Your task to perform on an android device: check storage Image 0: 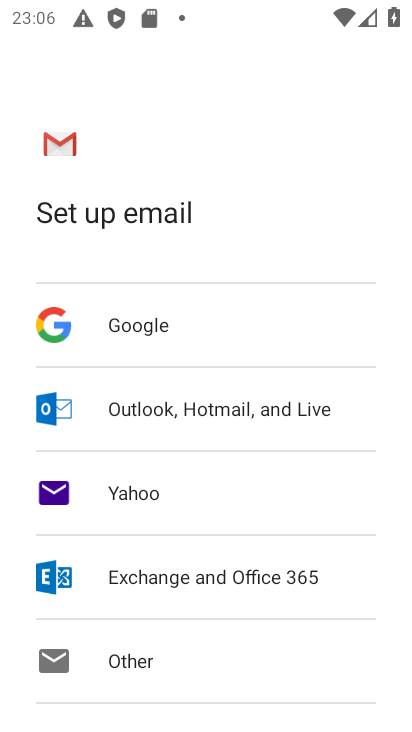
Step 0: press back button
Your task to perform on an android device: check storage Image 1: 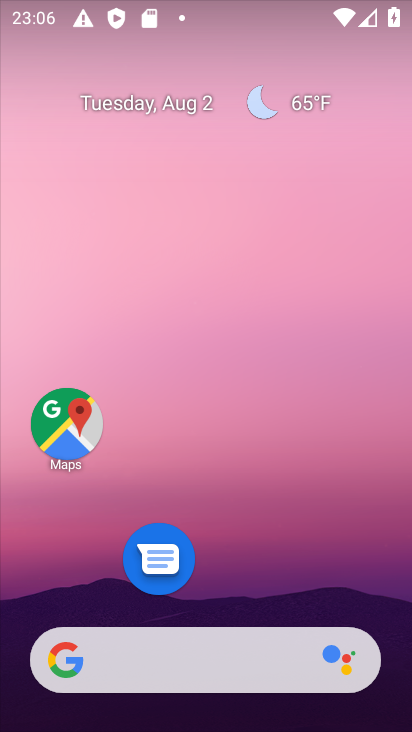
Step 1: drag from (214, 660) to (95, 141)
Your task to perform on an android device: check storage Image 2: 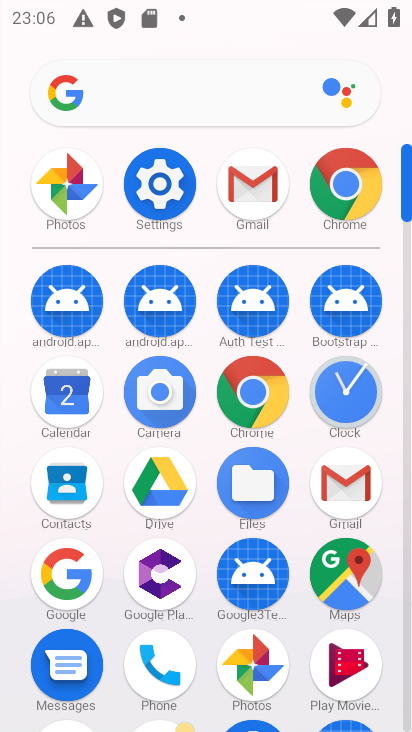
Step 2: drag from (208, 513) to (74, 181)
Your task to perform on an android device: check storage Image 3: 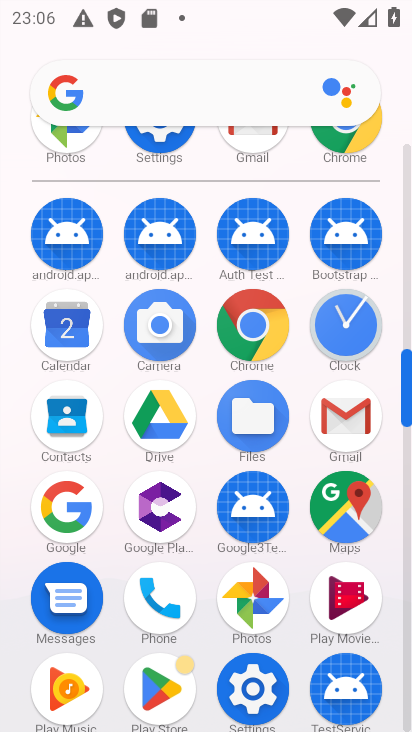
Step 3: drag from (102, 317) to (72, 153)
Your task to perform on an android device: check storage Image 4: 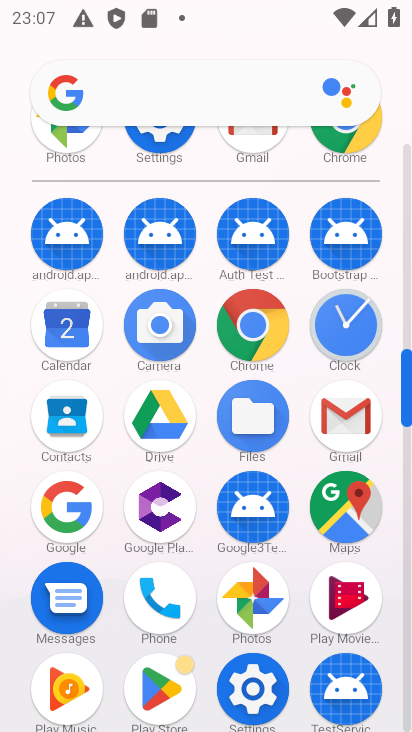
Step 4: click (258, 683)
Your task to perform on an android device: check storage Image 5: 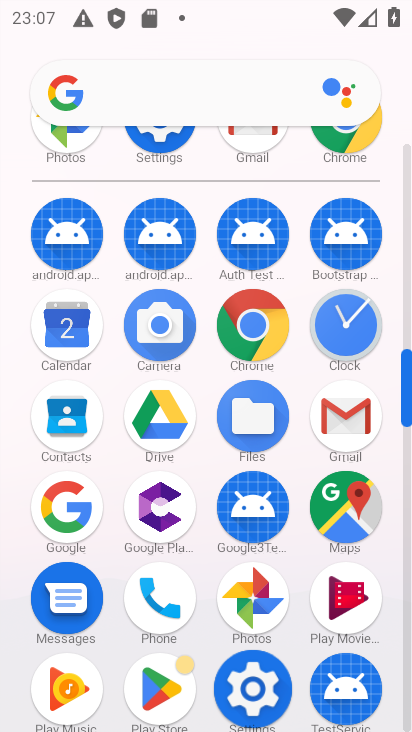
Step 5: click (256, 683)
Your task to perform on an android device: check storage Image 6: 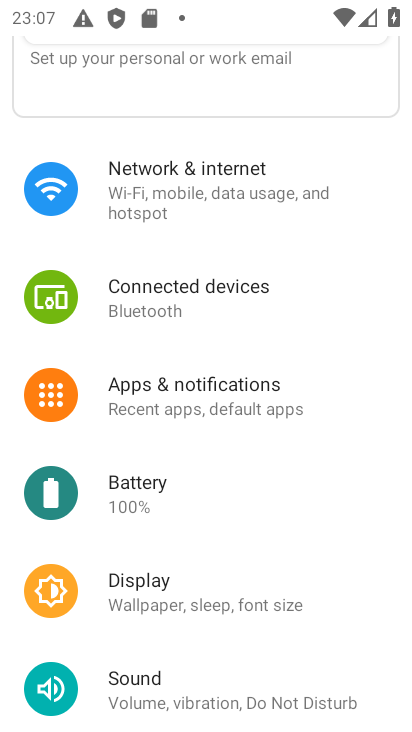
Step 6: drag from (146, 640) to (91, 367)
Your task to perform on an android device: check storage Image 7: 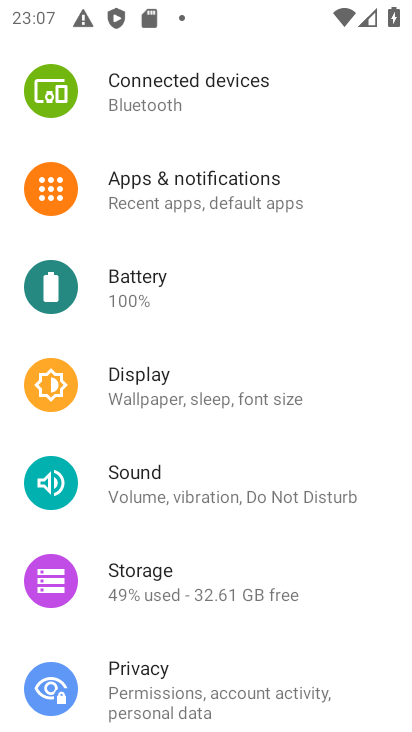
Step 7: drag from (163, 630) to (157, 461)
Your task to perform on an android device: check storage Image 8: 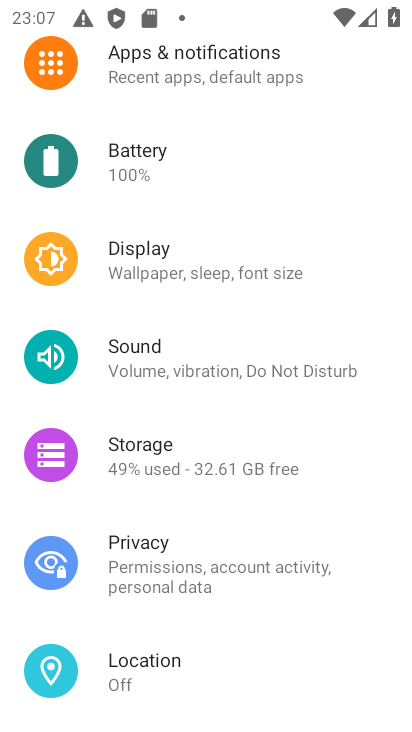
Step 8: click (149, 457)
Your task to perform on an android device: check storage Image 9: 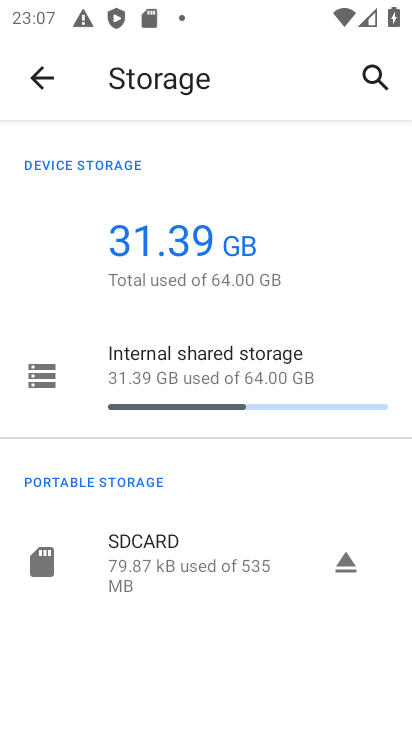
Step 9: task complete